Your task to perform on an android device: Go to Reddit.com Image 0: 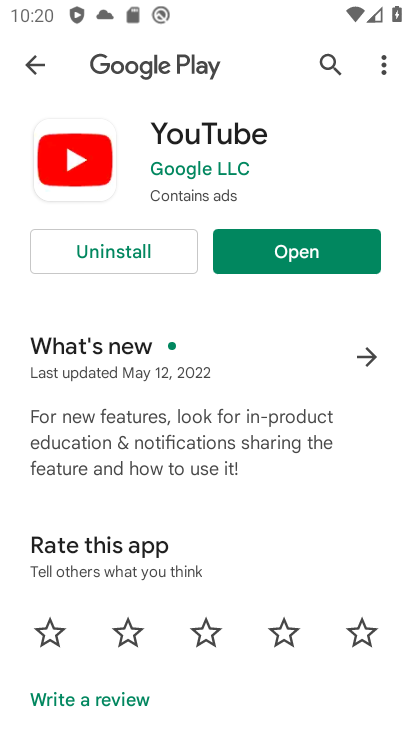
Step 0: press home button
Your task to perform on an android device: Go to Reddit.com Image 1: 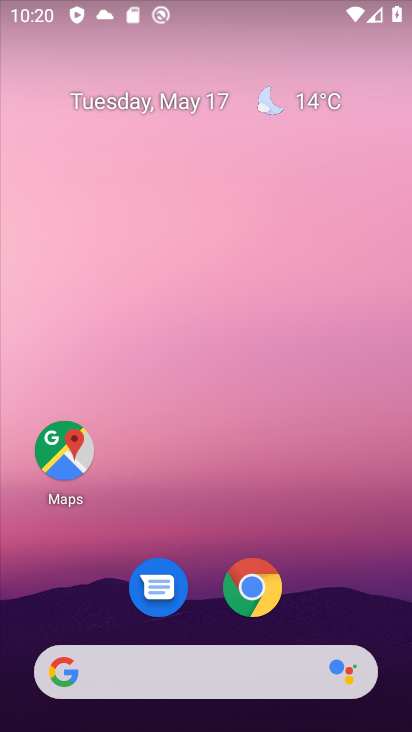
Step 1: click (257, 596)
Your task to perform on an android device: Go to Reddit.com Image 2: 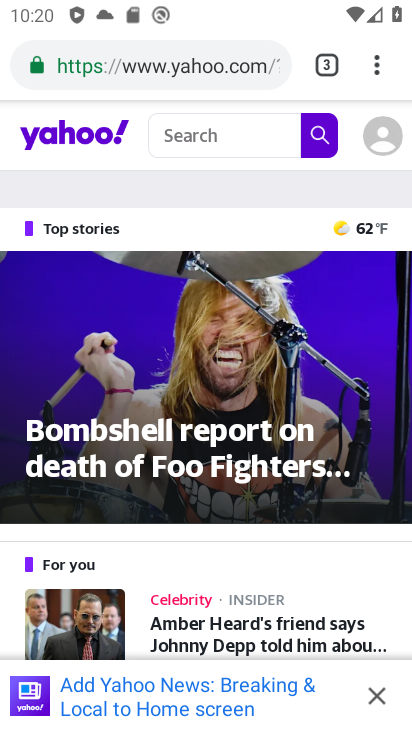
Step 2: click (326, 54)
Your task to perform on an android device: Go to Reddit.com Image 3: 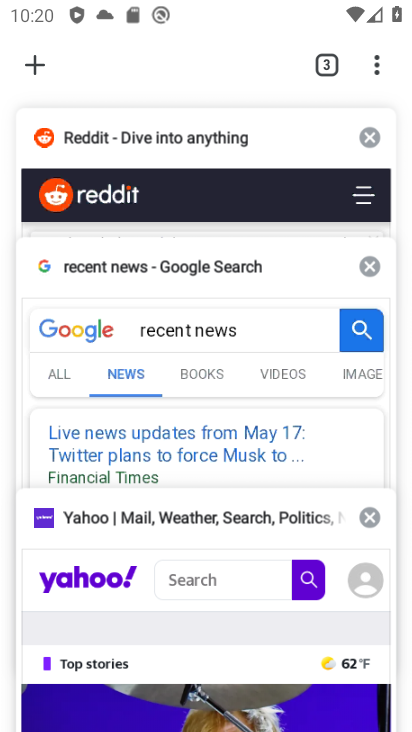
Step 3: click (165, 142)
Your task to perform on an android device: Go to Reddit.com Image 4: 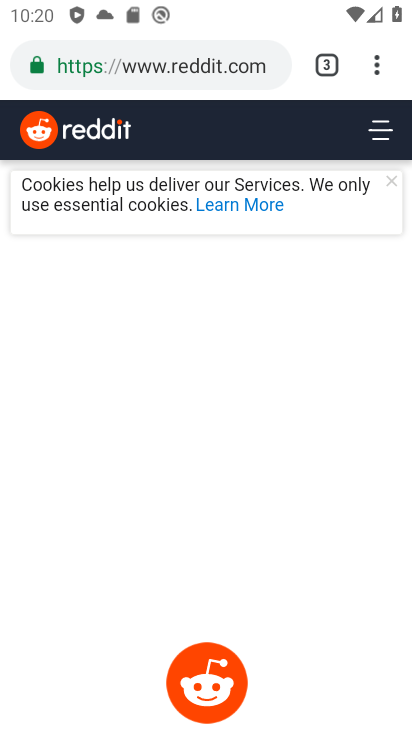
Step 4: task complete